Your task to perform on an android device: Go to Yahoo.com Image 0: 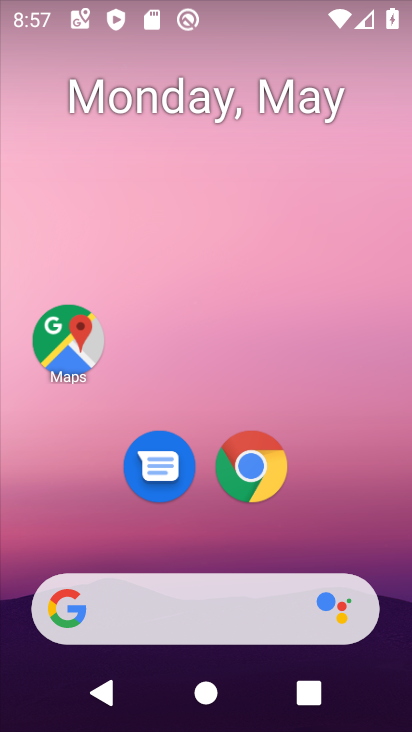
Step 0: press home button
Your task to perform on an android device: Go to Yahoo.com Image 1: 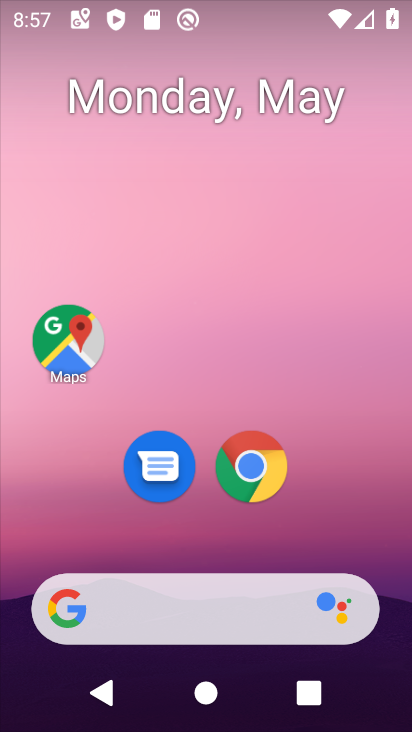
Step 1: click (251, 459)
Your task to perform on an android device: Go to Yahoo.com Image 2: 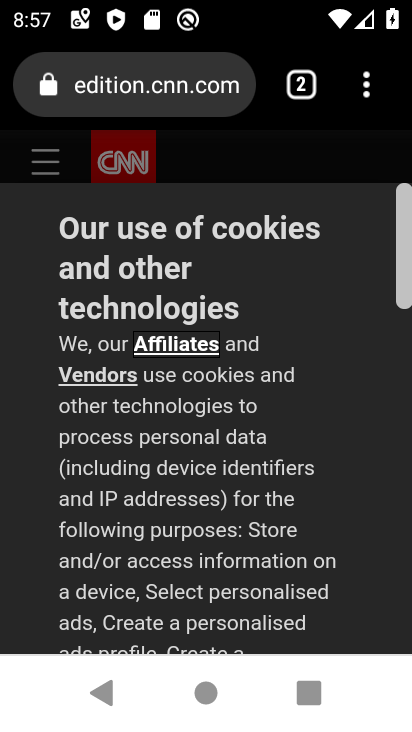
Step 2: click (149, 84)
Your task to perform on an android device: Go to Yahoo.com Image 3: 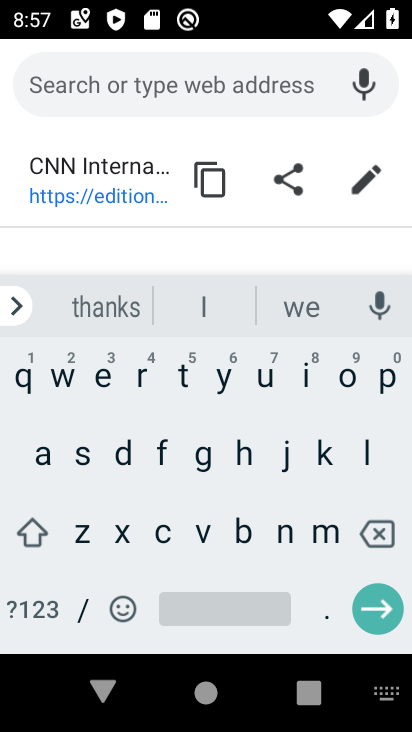
Step 3: click (220, 376)
Your task to perform on an android device: Go to Yahoo.com Image 4: 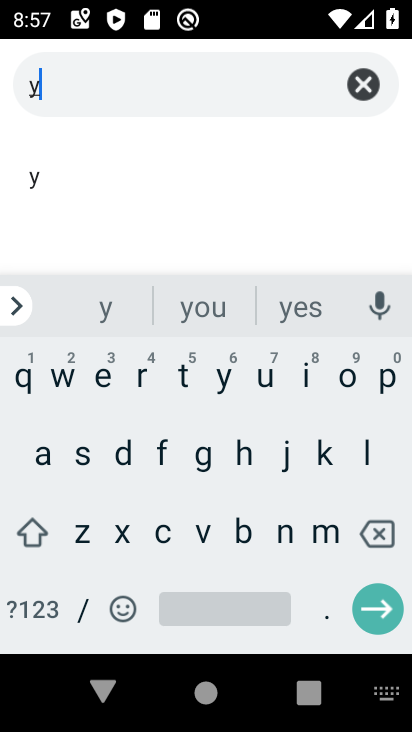
Step 4: click (38, 457)
Your task to perform on an android device: Go to Yahoo.com Image 5: 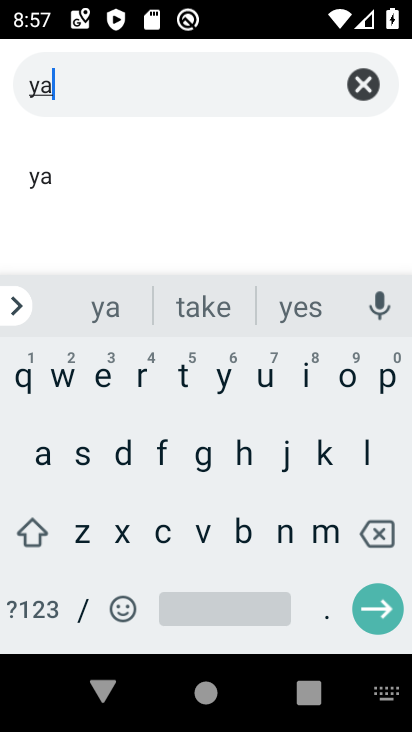
Step 5: click (229, 453)
Your task to perform on an android device: Go to Yahoo.com Image 6: 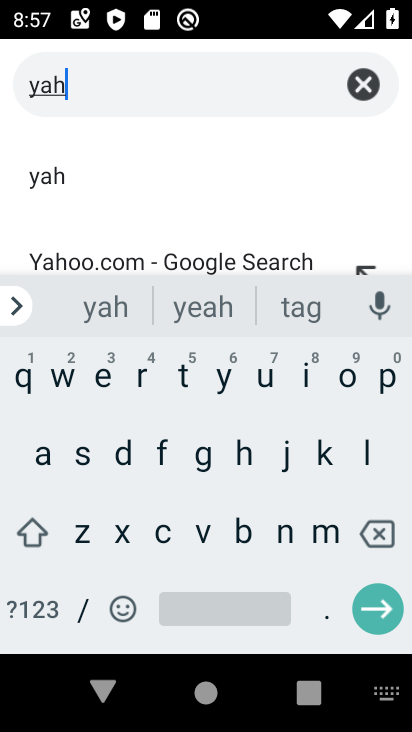
Step 6: click (176, 262)
Your task to perform on an android device: Go to Yahoo.com Image 7: 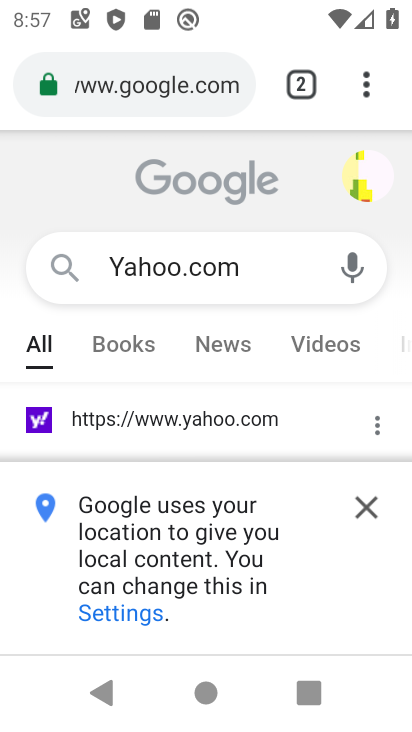
Step 7: click (124, 429)
Your task to perform on an android device: Go to Yahoo.com Image 8: 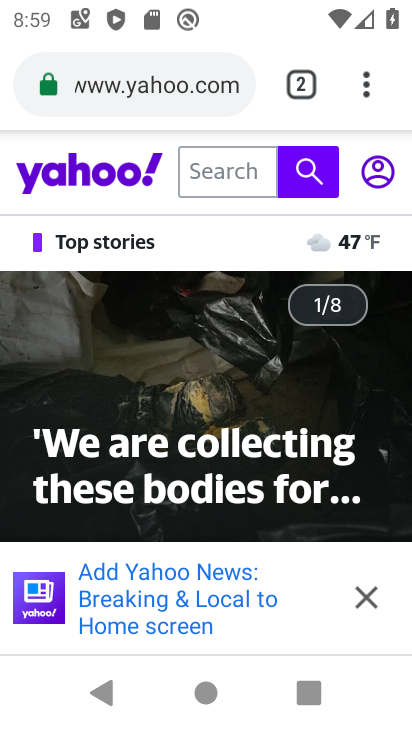
Step 8: task complete